Your task to perform on an android device: Open Maps and search for coffee Image 0: 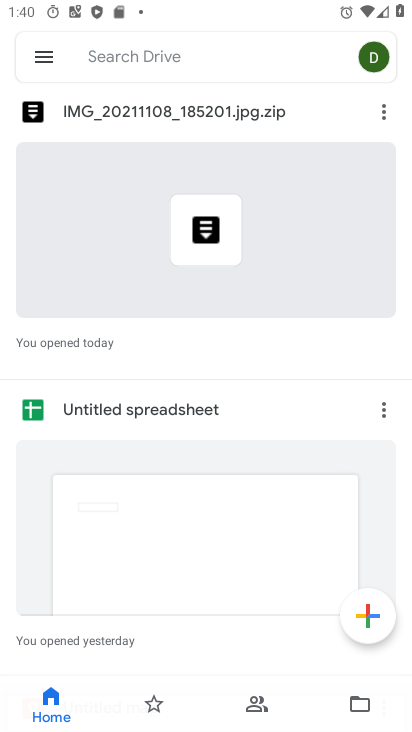
Step 0: press home button
Your task to perform on an android device: Open Maps and search for coffee Image 1: 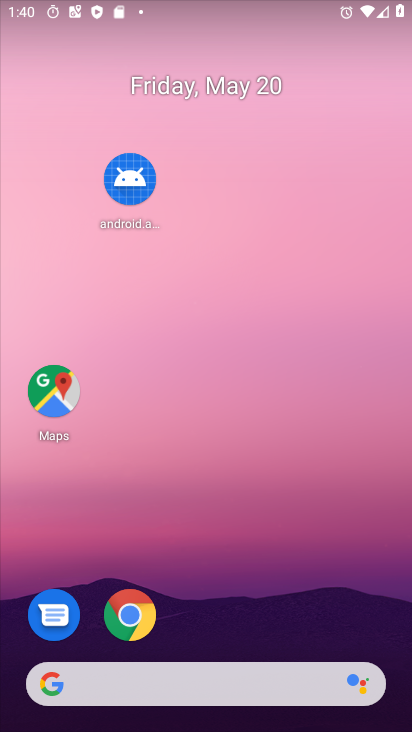
Step 1: click (60, 390)
Your task to perform on an android device: Open Maps and search for coffee Image 2: 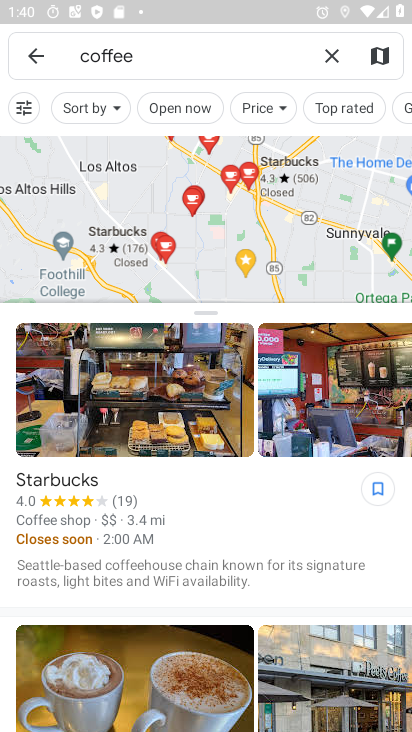
Step 2: task complete